Your task to perform on an android device: open a new tab in the chrome app Image 0: 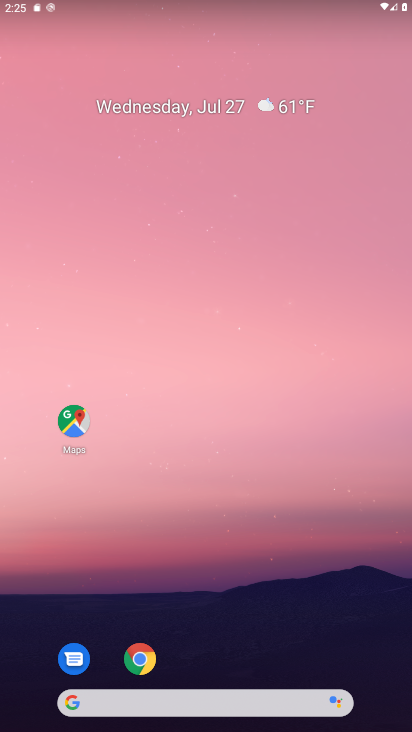
Step 0: click (144, 672)
Your task to perform on an android device: open a new tab in the chrome app Image 1: 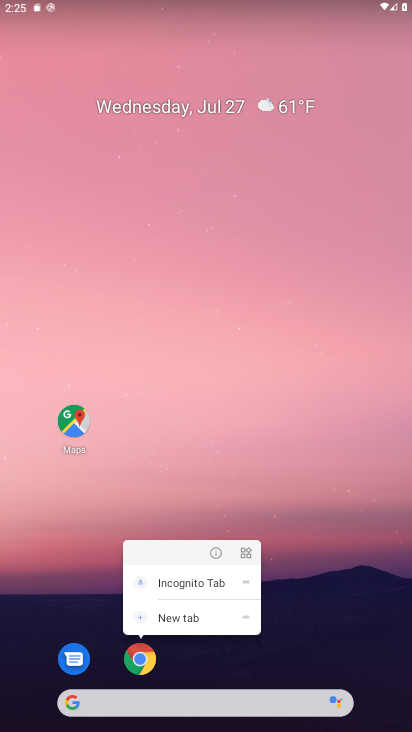
Step 1: click (174, 620)
Your task to perform on an android device: open a new tab in the chrome app Image 2: 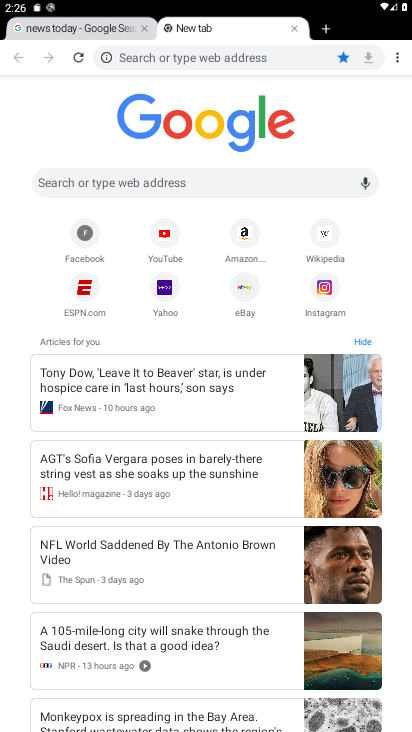
Step 2: task complete